Your task to perform on an android device: Go to Reddit.com Image 0: 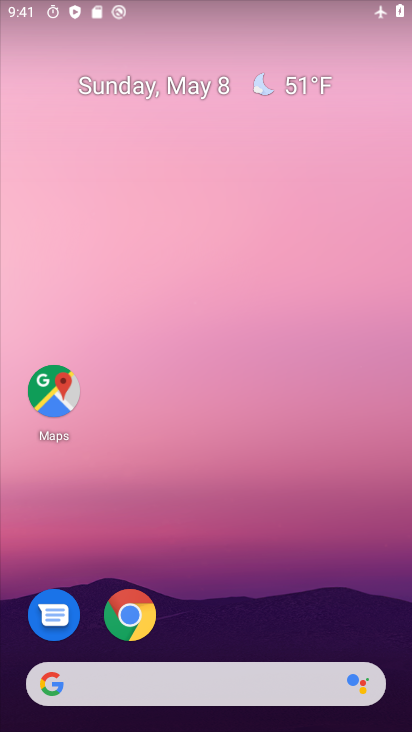
Step 0: click (144, 629)
Your task to perform on an android device: Go to Reddit.com Image 1: 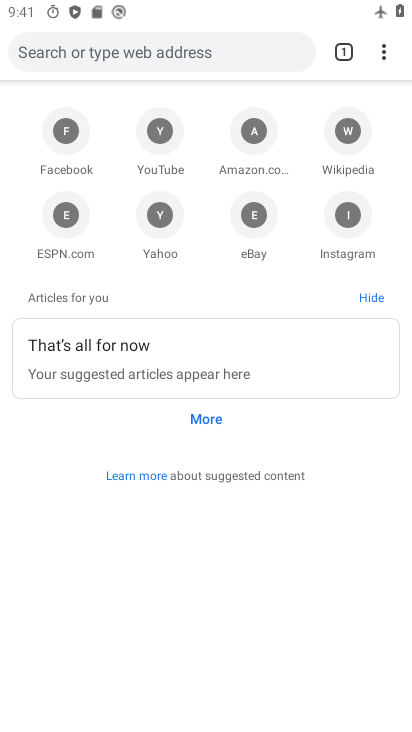
Step 1: click (163, 53)
Your task to perform on an android device: Go to Reddit.com Image 2: 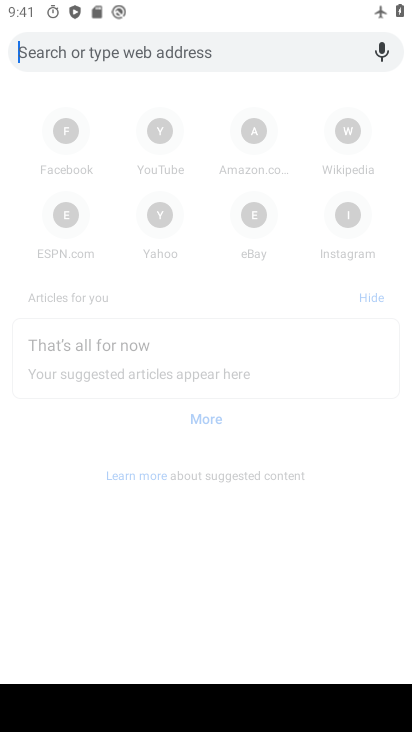
Step 2: type "Reddit.com"
Your task to perform on an android device: Go to Reddit.com Image 3: 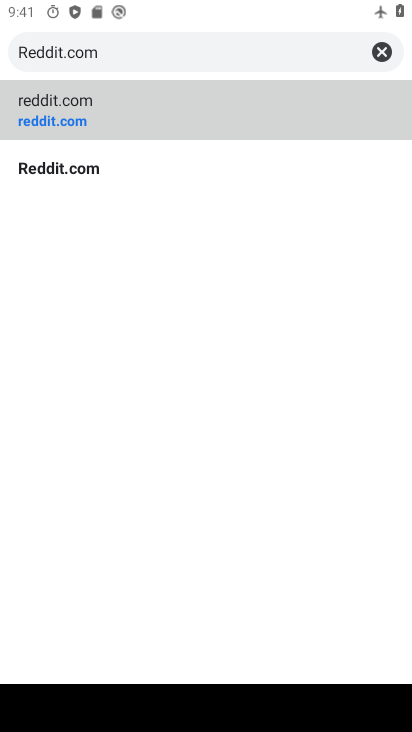
Step 3: click (48, 117)
Your task to perform on an android device: Go to Reddit.com Image 4: 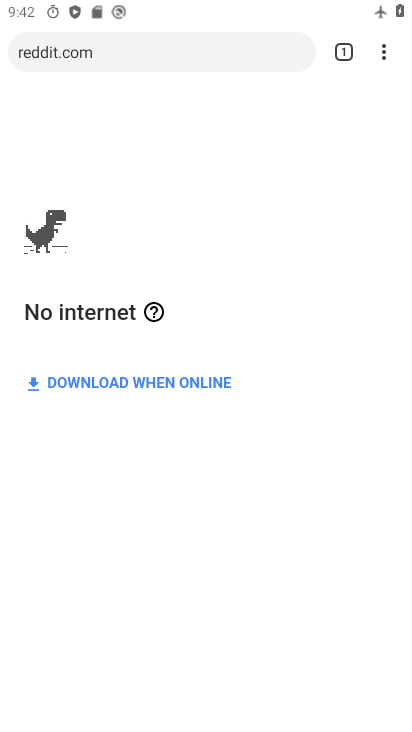
Step 4: task complete